Your task to perform on an android device: Open settings Image 0: 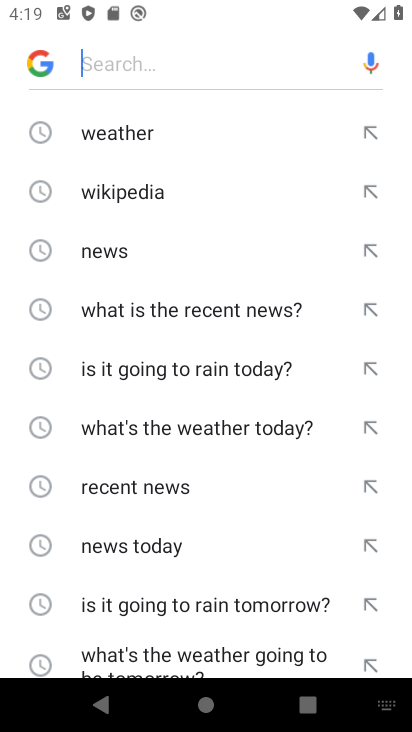
Step 0: press home button
Your task to perform on an android device: Open settings Image 1: 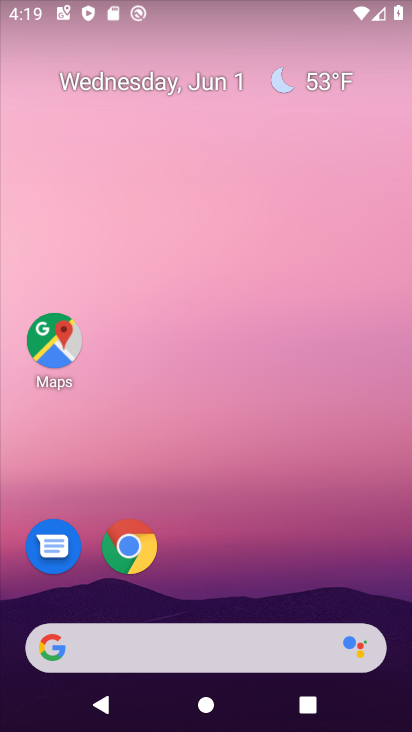
Step 1: drag from (241, 525) to (239, 106)
Your task to perform on an android device: Open settings Image 2: 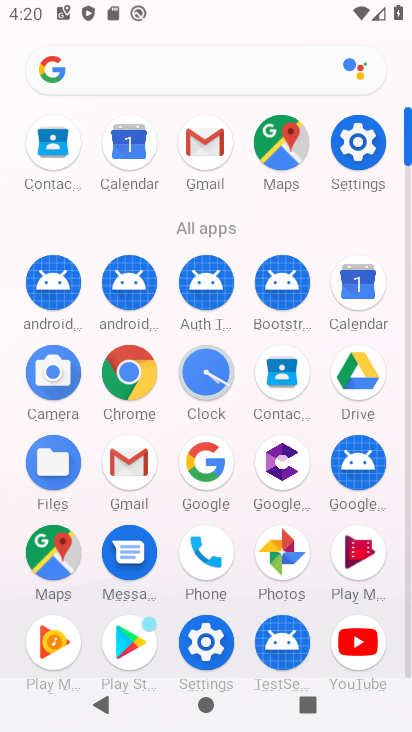
Step 2: click (346, 146)
Your task to perform on an android device: Open settings Image 3: 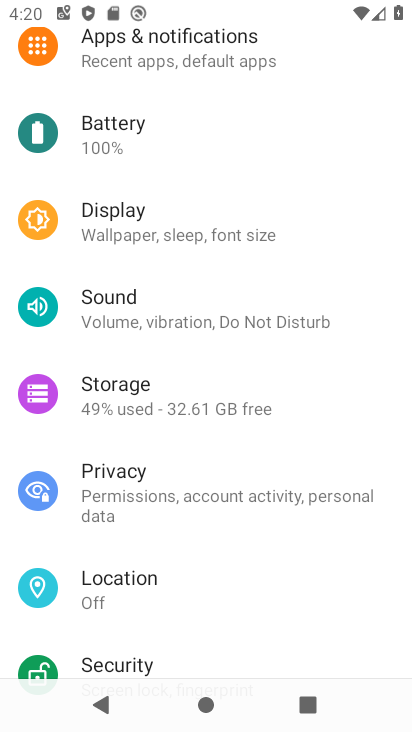
Step 3: task complete